Your task to perform on an android device: Search for "lg ultragear" on costco, select the first entry, and add it to the cart. Image 0: 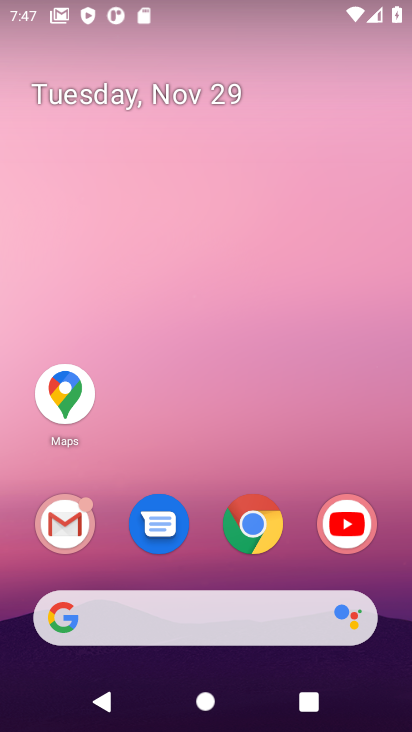
Step 0: click (249, 516)
Your task to perform on an android device: Search for "lg ultragear" on costco, select the first entry, and add it to the cart. Image 1: 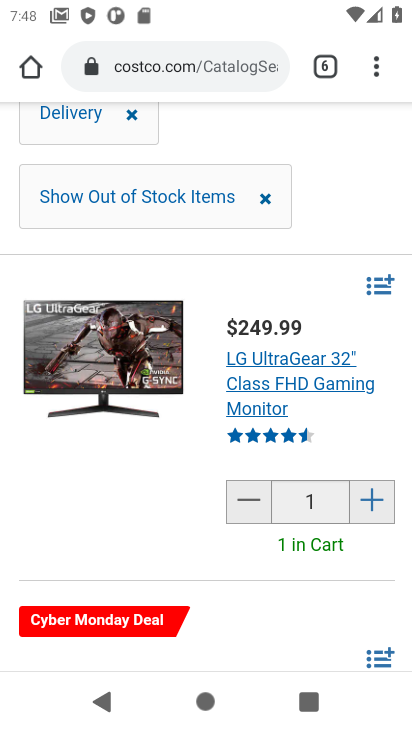
Step 1: drag from (317, 160) to (329, 370)
Your task to perform on an android device: Search for "lg ultragear" on costco, select the first entry, and add it to the cart. Image 2: 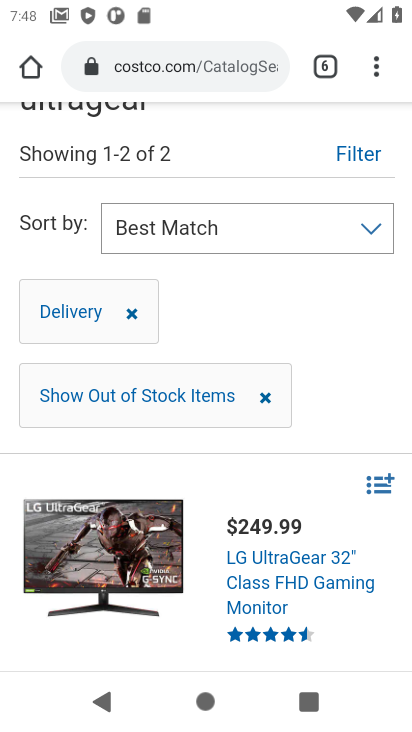
Step 2: drag from (286, 328) to (262, 548)
Your task to perform on an android device: Search for "lg ultragear" on costco, select the first entry, and add it to the cart. Image 3: 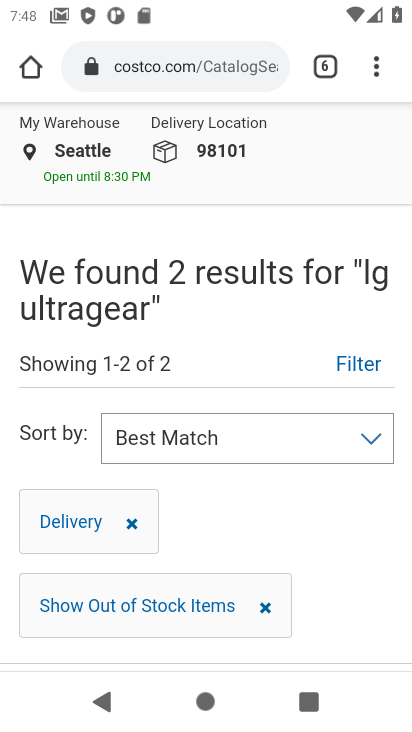
Step 3: drag from (264, 340) to (254, 498)
Your task to perform on an android device: Search for "lg ultragear" on costco, select the first entry, and add it to the cart. Image 4: 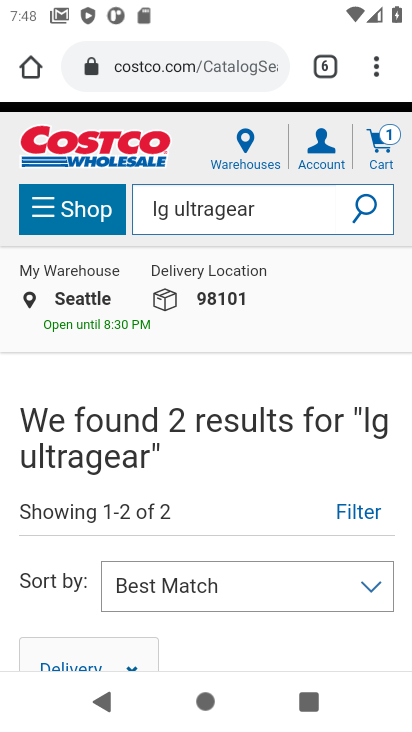
Step 4: drag from (222, 542) to (189, 332)
Your task to perform on an android device: Search for "lg ultragear" on costco, select the first entry, and add it to the cart. Image 5: 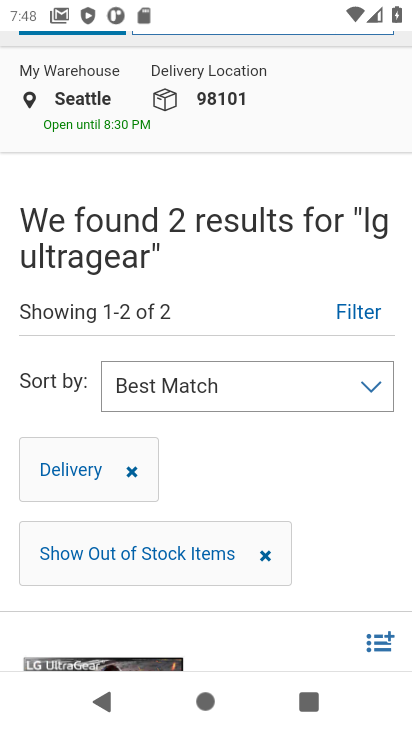
Step 5: drag from (312, 552) to (283, 270)
Your task to perform on an android device: Search for "lg ultragear" on costco, select the first entry, and add it to the cart. Image 6: 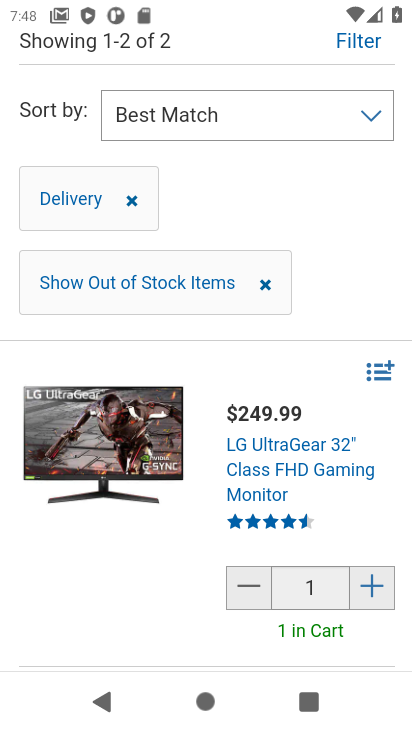
Step 6: click (370, 582)
Your task to perform on an android device: Search for "lg ultragear" on costco, select the first entry, and add it to the cart. Image 7: 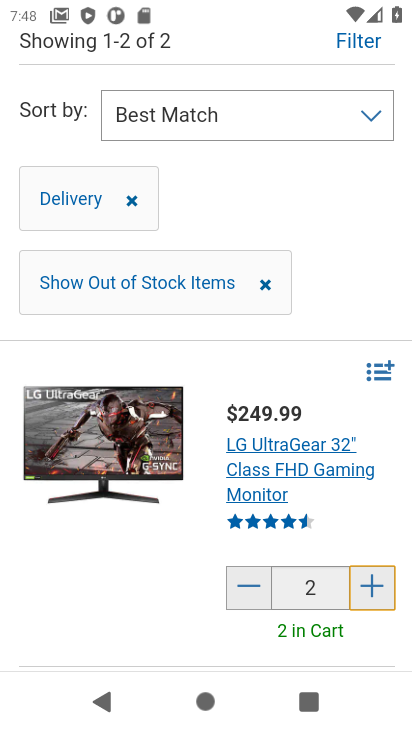
Step 7: task complete